Your task to perform on an android device: change text size in settings app Image 0: 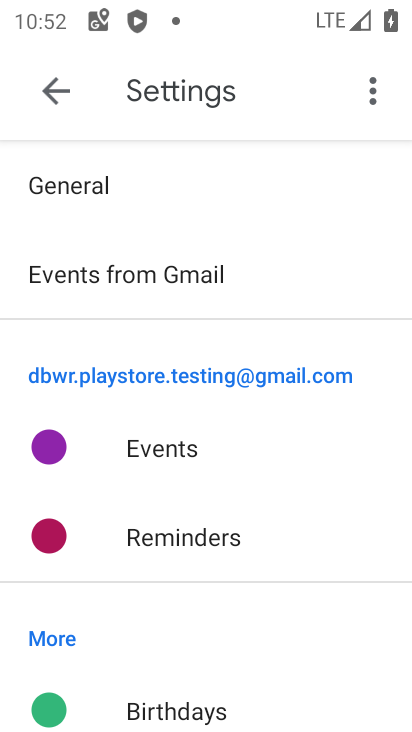
Step 0: press home button
Your task to perform on an android device: change text size in settings app Image 1: 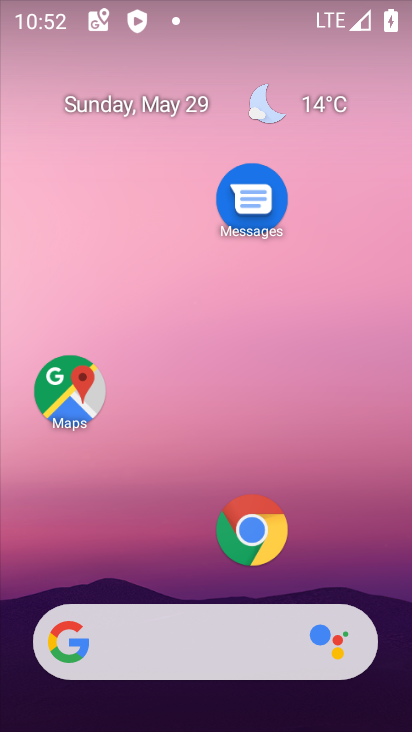
Step 1: drag from (170, 568) to (194, 136)
Your task to perform on an android device: change text size in settings app Image 2: 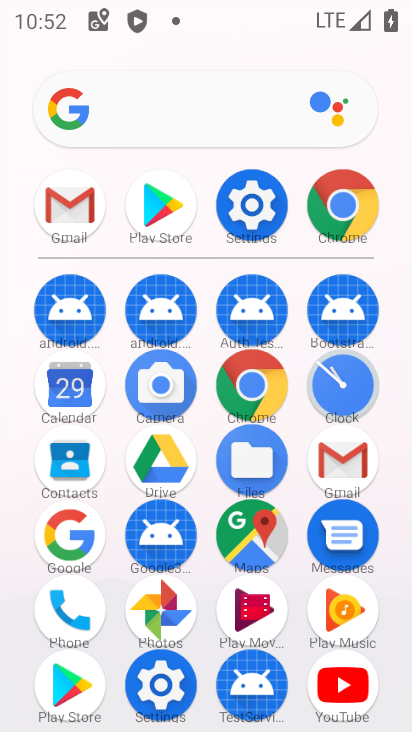
Step 2: click (255, 224)
Your task to perform on an android device: change text size in settings app Image 3: 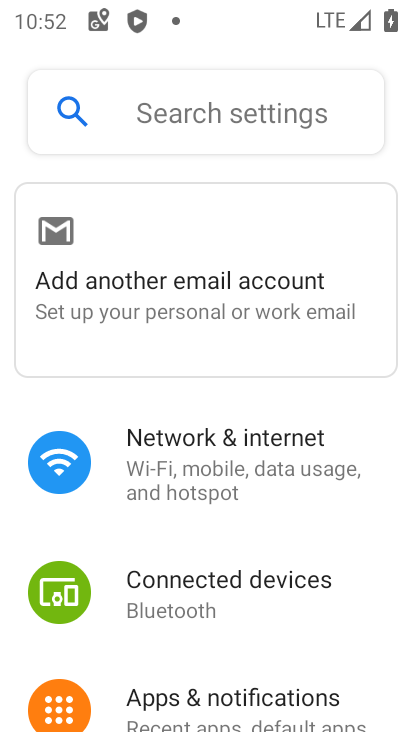
Step 3: drag from (220, 635) to (274, 276)
Your task to perform on an android device: change text size in settings app Image 4: 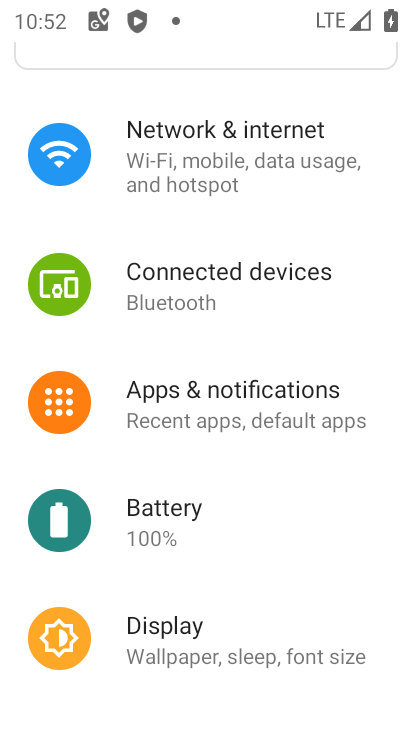
Step 4: click (194, 665)
Your task to perform on an android device: change text size in settings app Image 5: 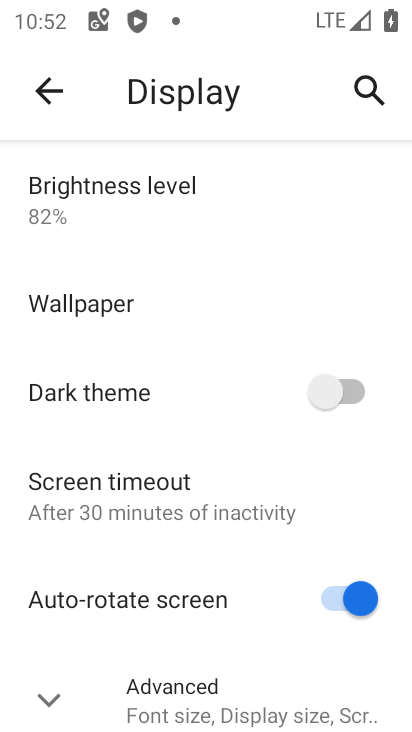
Step 5: drag from (96, 541) to (101, 419)
Your task to perform on an android device: change text size in settings app Image 6: 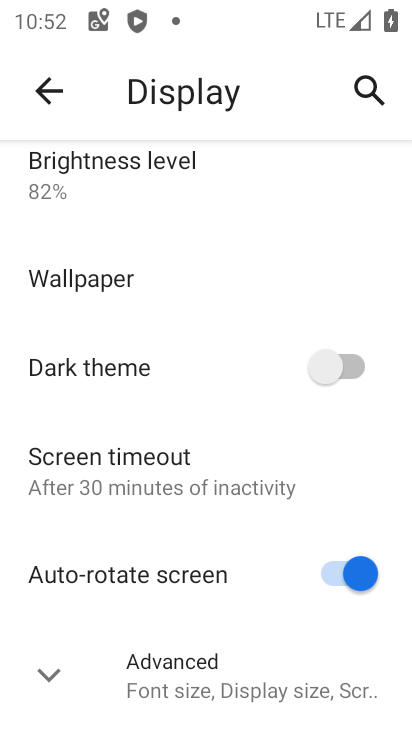
Step 6: click (46, 663)
Your task to perform on an android device: change text size in settings app Image 7: 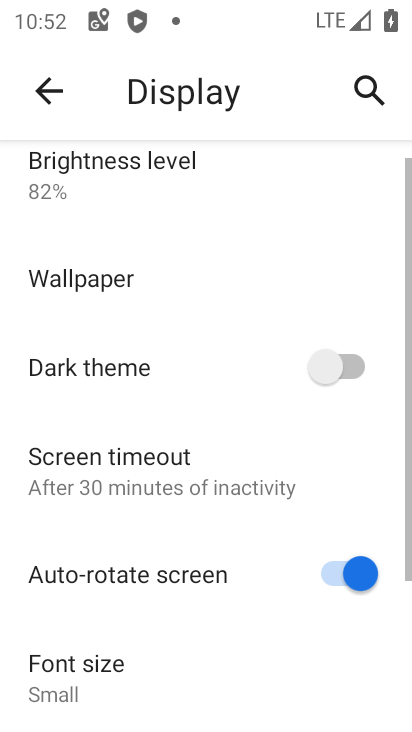
Step 7: drag from (126, 677) to (161, 418)
Your task to perform on an android device: change text size in settings app Image 8: 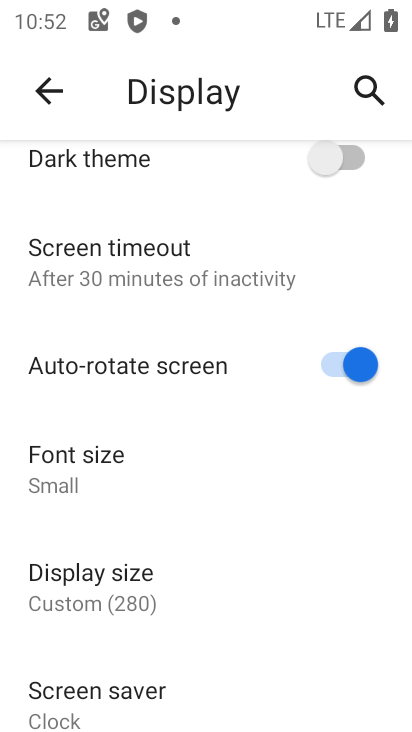
Step 8: click (108, 455)
Your task to perform on an android device: change text size in settings app Image 9: 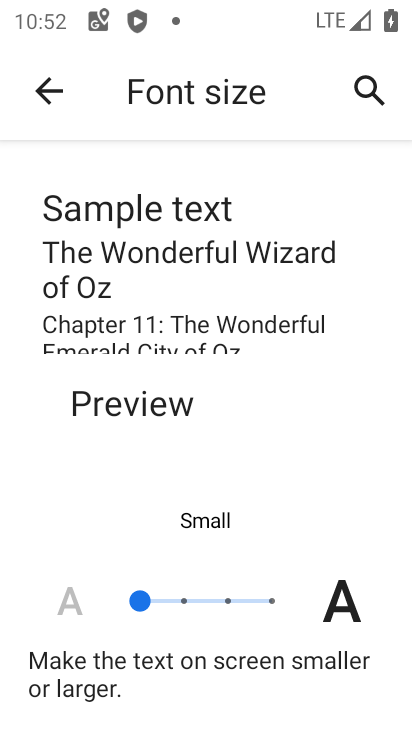
Step 9: click (167, 598)
Your task to perform on an android device: change text size in settings app Image 10: 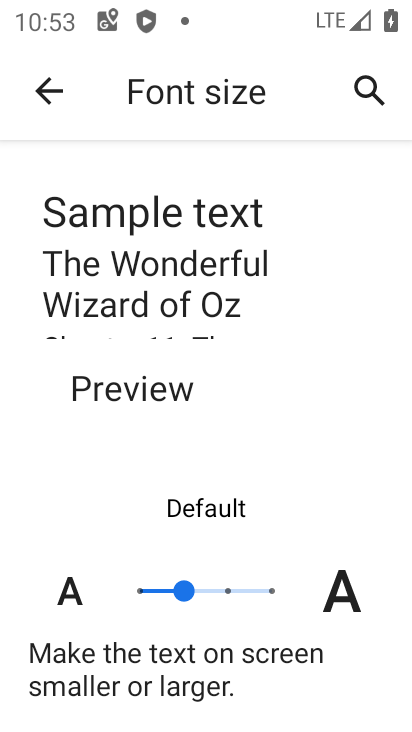
Step 10: task complete